Your task to perform on an android device: Open settings Image 0: 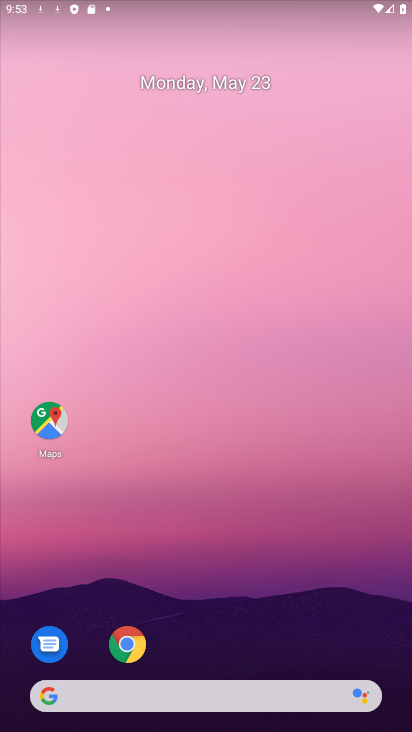
Step 0: drag from (274, 714) to (186, 201)
Your task to perform on an android device: Open settings Image 1: 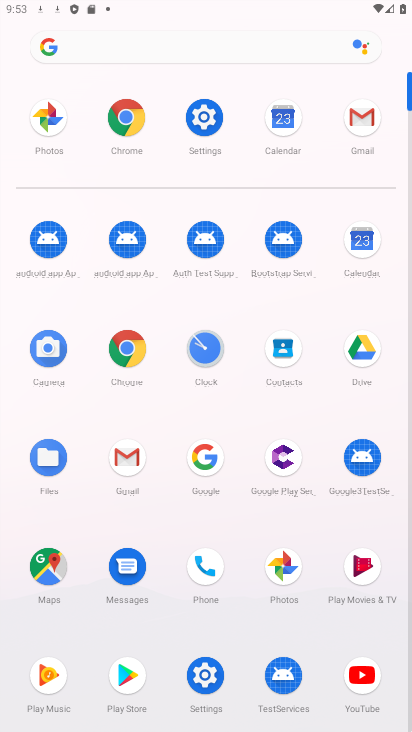
Step 1: click (199, 137)
Your task to perform on an android device: Open settings Image 2: 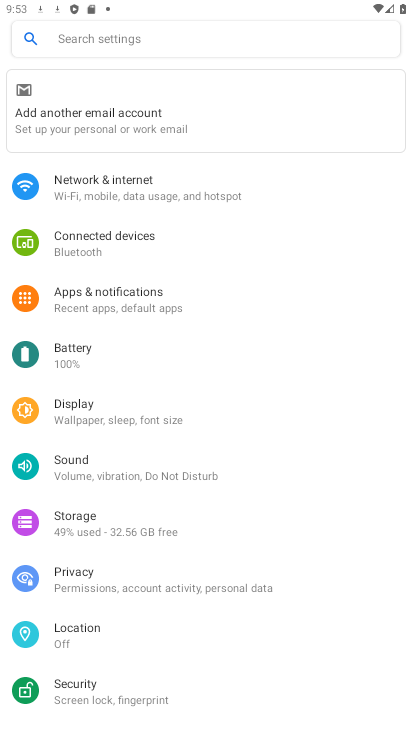
Step 2: task complete